Your task to perform on an android device: add a contact Image 0: 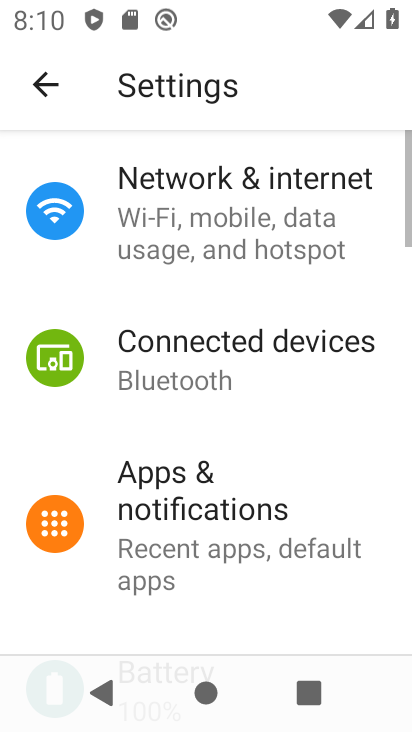
Step 0: press home button
Your task to perform on an android device: add a contact Image 1: 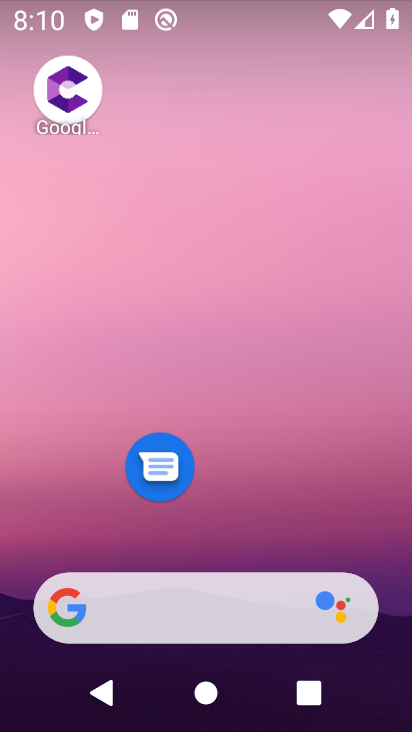
Step 1: drag from (242, 523) to (257, 173)
Your task to perform on an android device: add a contact Image 2: 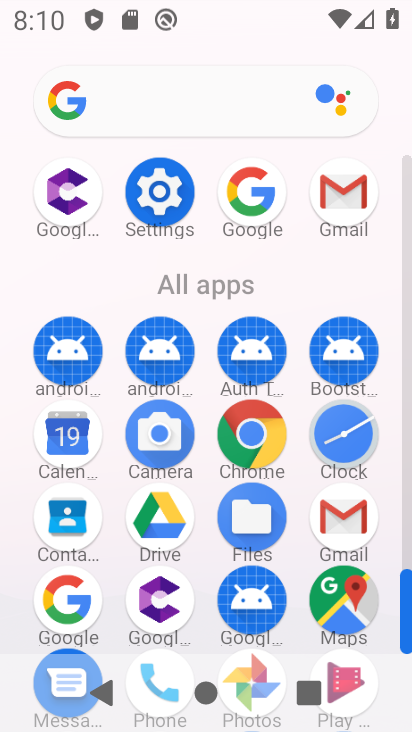
Step 2: click (66, 519)
Your task to perform on an android device: add a contact Image 3: 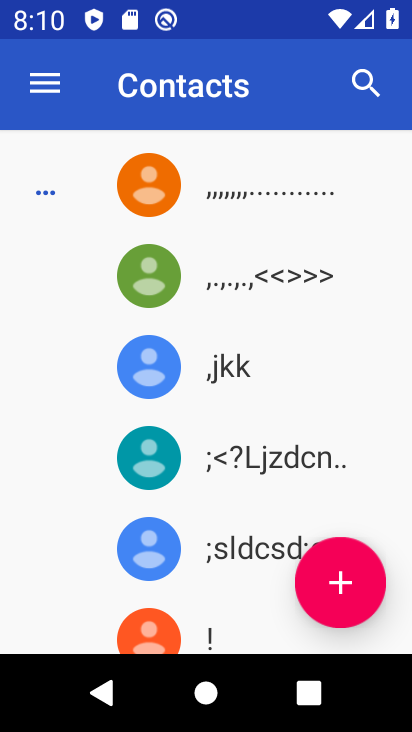
Step 3: click (348, 584)
Your task to perform on an android device: add a contact Image 4: 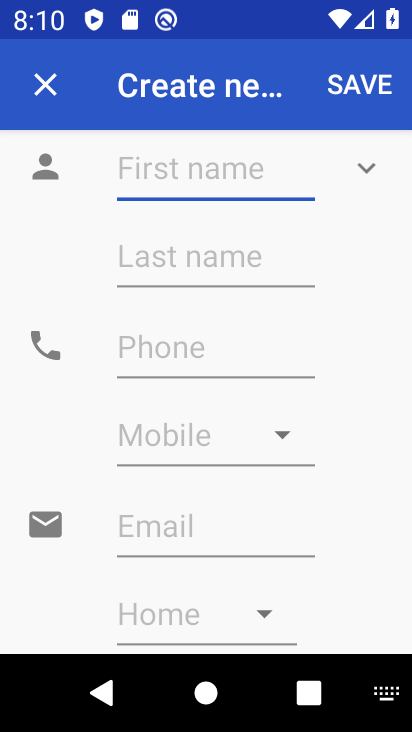
Step 4: type "bfgh"
Your task to perform on an android device: add a contact Image 5: 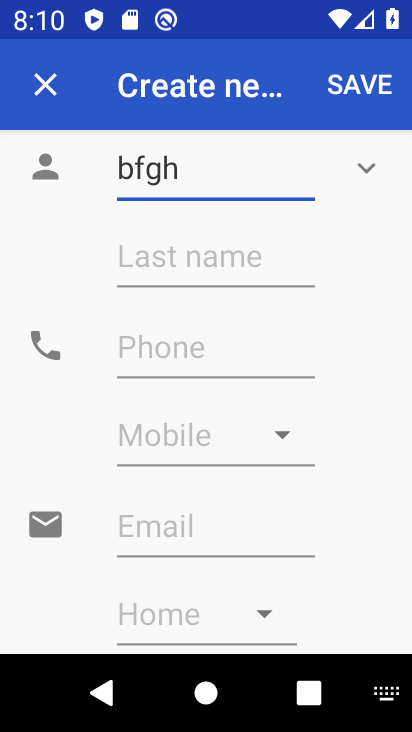
Step 5: click (360, 93)
Your task to perform on an android device: add a contact Image 6: 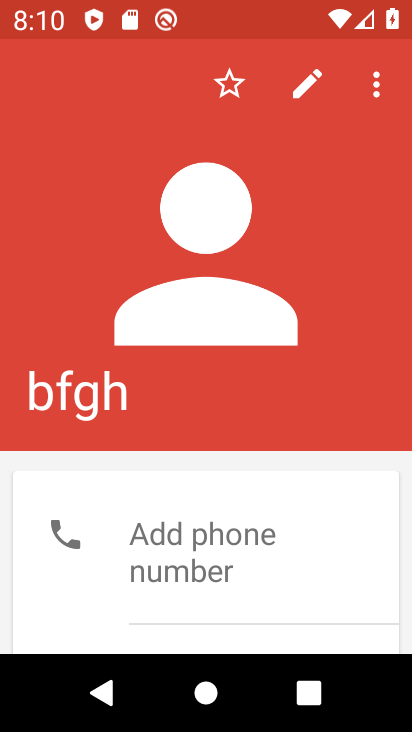
Step 6: task complete